Your task to perform on an android device: turn on javascript in the chrome app Image 0: 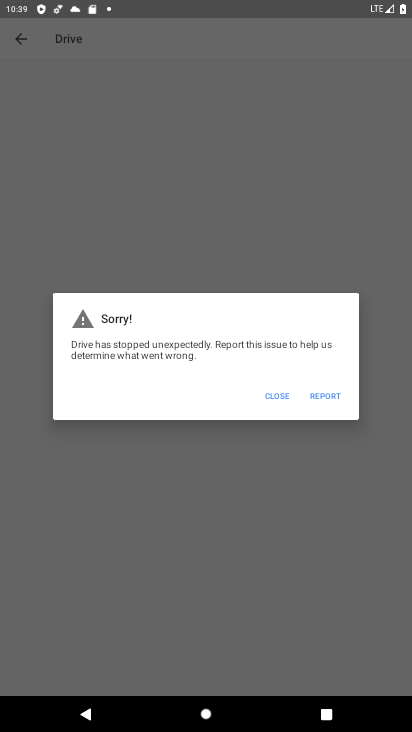
Step 0: press home button
Your task to perform on an android device: turn on javascript in the chrome app Image 1: 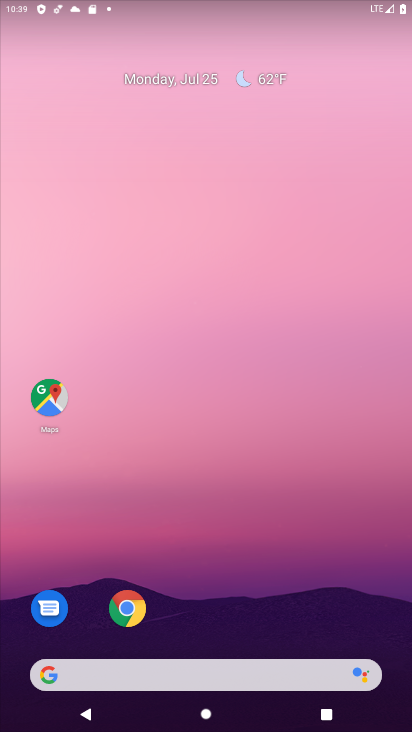
Step 1: click (133, 610)
Your task to perform on an android device: turn on javascript in the chrome app Image 2: 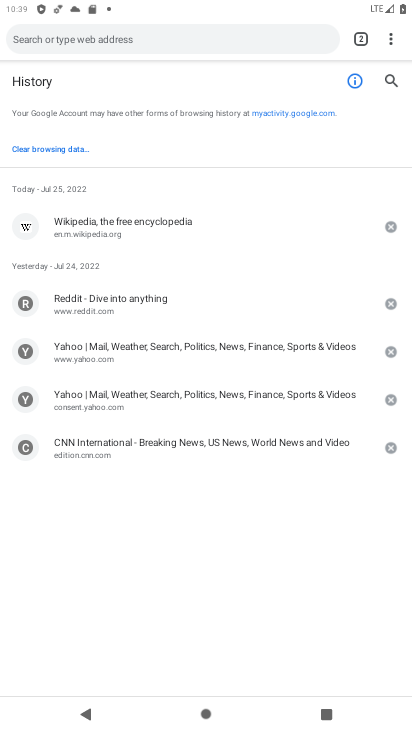
Step 2: click (393, 41)
Your task to perform on an android device: turn on javascript in the chrome app Image 3: 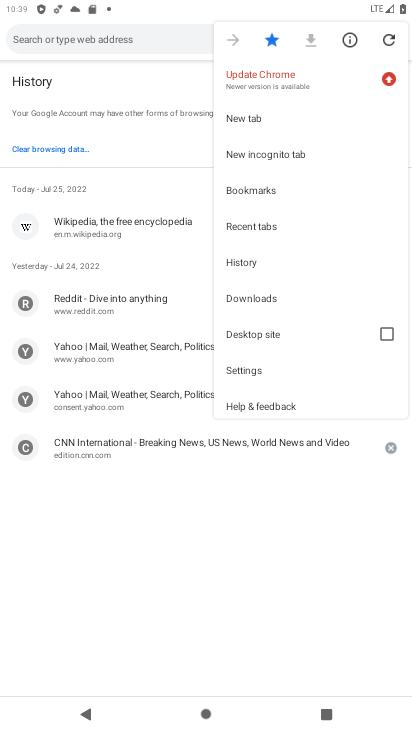
Step 3: click (249, 373)
Your task to perform on an android device: turn on javascript in the chrome app Image 4: 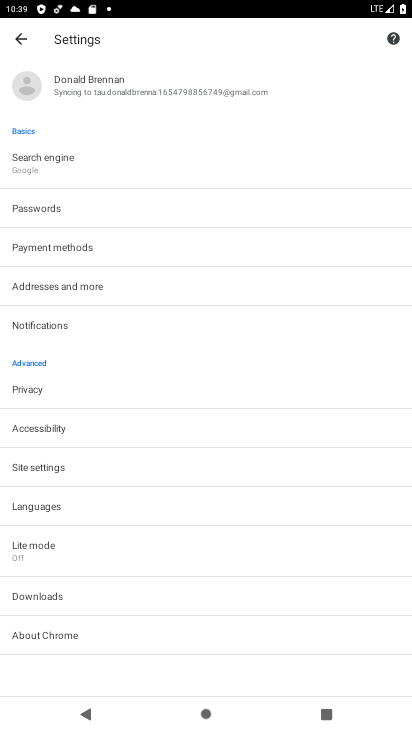
Step 4: click (60, 464)
Your task to perform on an android device: turn on javascript in the chrome app Image 5: 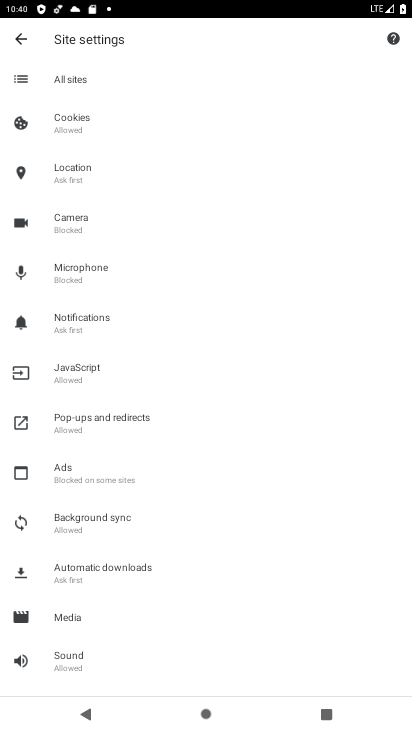
Step 5: click (82, 374)
Your task to perform on an android device: turn on javascript in the chrome app Image 6: 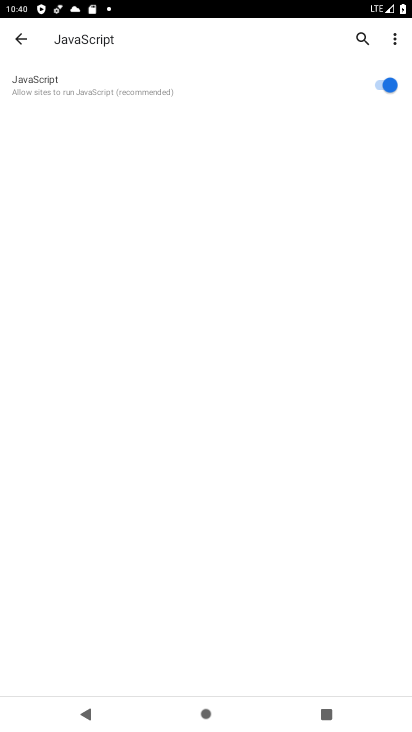
Step 6: task complete